Your task to perform on an android device: Go to Android settings Image 0: 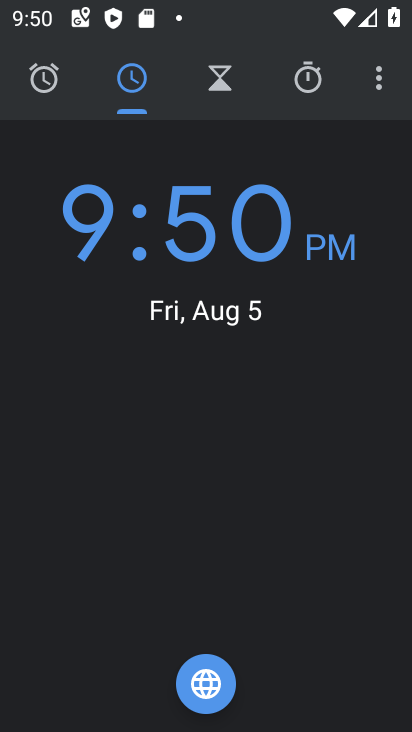
Step 0: press home button
Your task to perform on an android device: Go to Android settings Image 1: 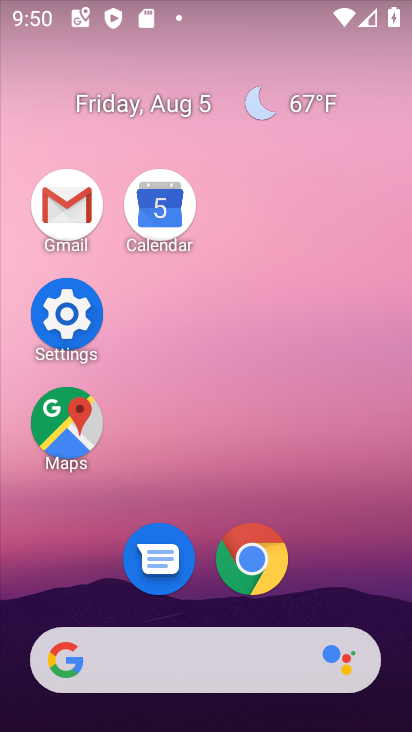
Step 1: click (86, 336)
Your task to perform on an android device: Go to Android settings Image 2: 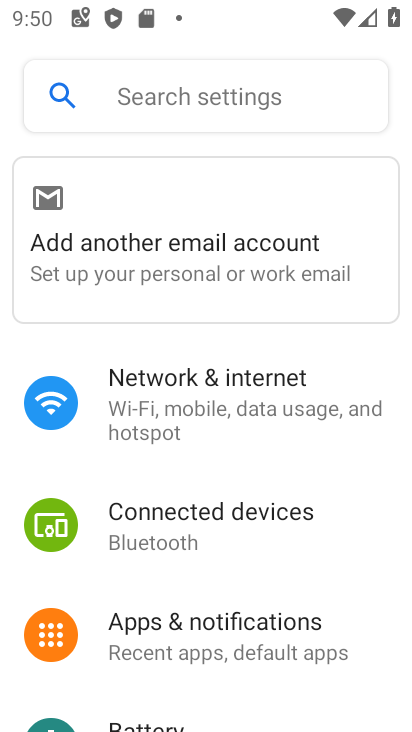
Step 2: task complete